Your task to perform on an android device: Is it going to rain tomorrow? Image 0: 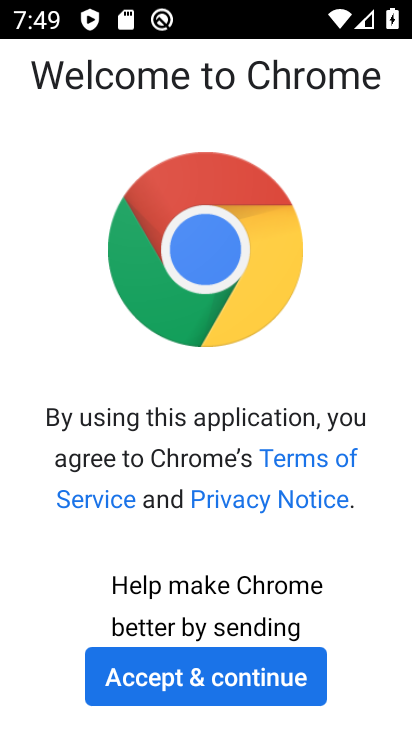
Step 0: press home button
Your task to perform on an android device: Is it going to rain tomorrow? Image 1: 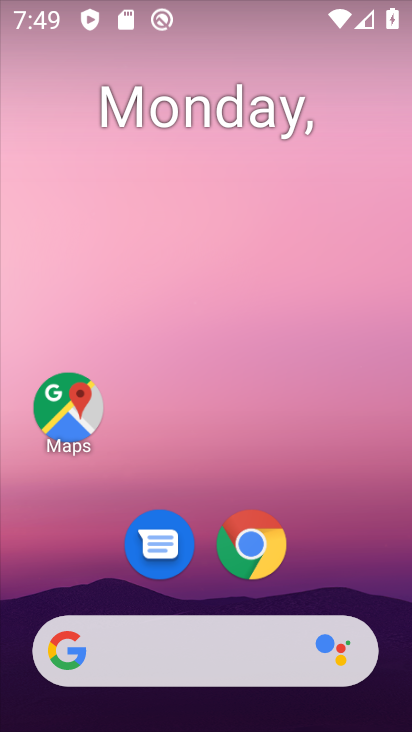
Step 1: click (194, 620)
Your task to perform on an android device: Is it going to rain tomorrow? Image 2: 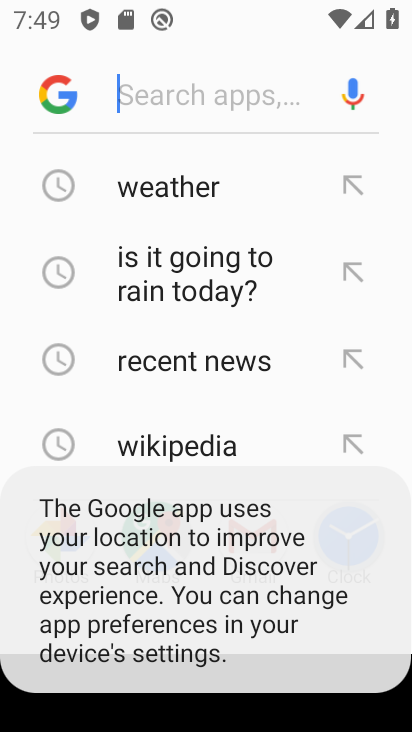
Step 2: click (164, 181)
Your task to perform on an android device: Is it going to rain tomorrow? Image 3: 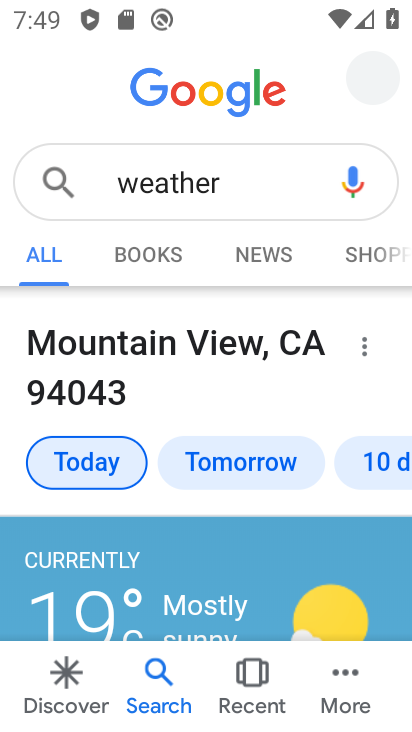
Step 3: click (257, 422)
Your task to perform on an android device: Is it going to rain tomorrow? Image 4: 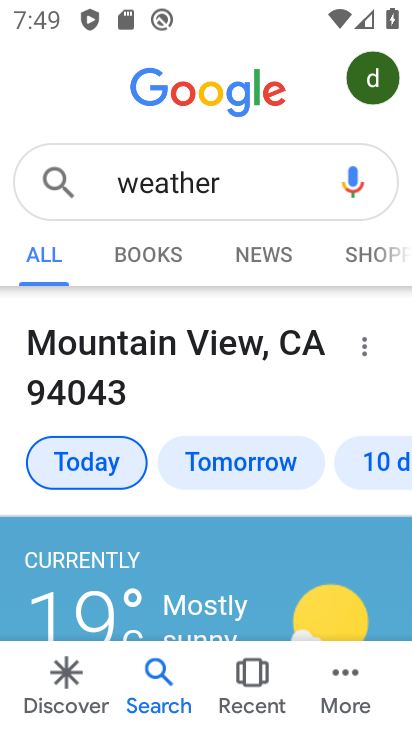
Step 4: click (254, 444)
Your task to perform on an android device: Is it going to rain tomorrow? Image 5: 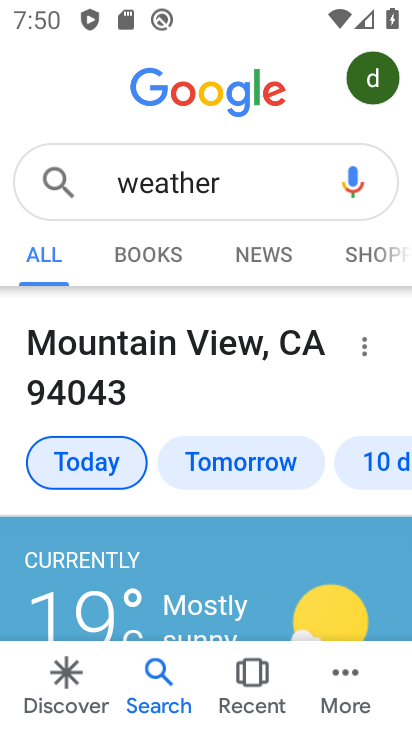
Step 5: click (232, 462)
Your task to perform on an android device: Is it going to rain tomorrow? Image 6: 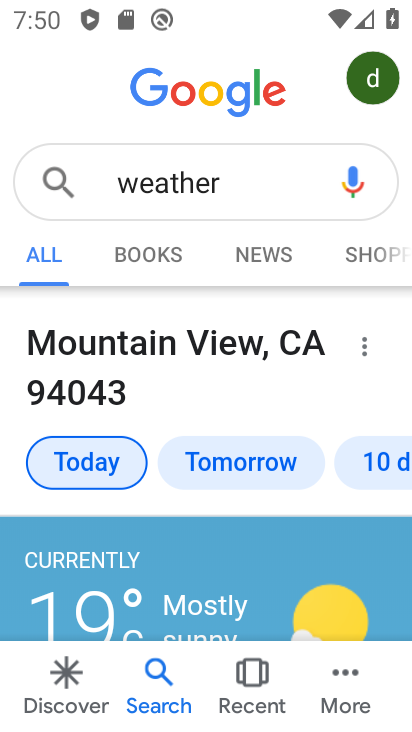
Step 6: task complete